Your task to perform on an android device: see tabs open on other devices in the chrome app Image 0: 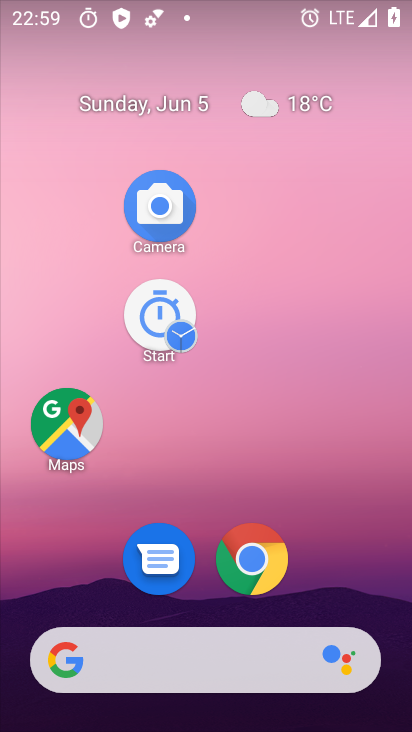
Step 0: drag from (275, 411) to (285, 112)
Your task to perform on an android device: see tabs open on other devices in the chrome app Image 1: 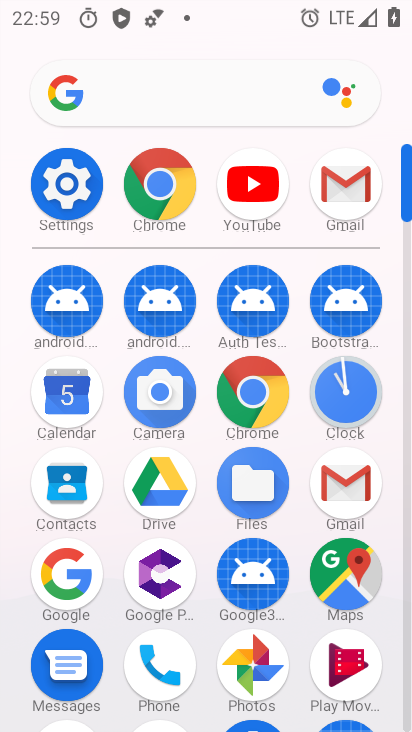
Step 1: press back button
Your task to perform on an android device: see tabs open on other devices in the chrome app Image 2: 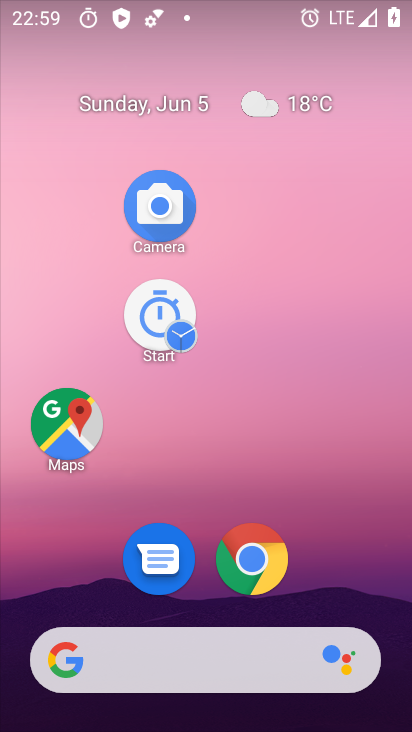
Step 2: drag from (240, 543) to (203, 233)
Your task to perform on an android device: see tabs open on other devices in the chrome app Image 3: 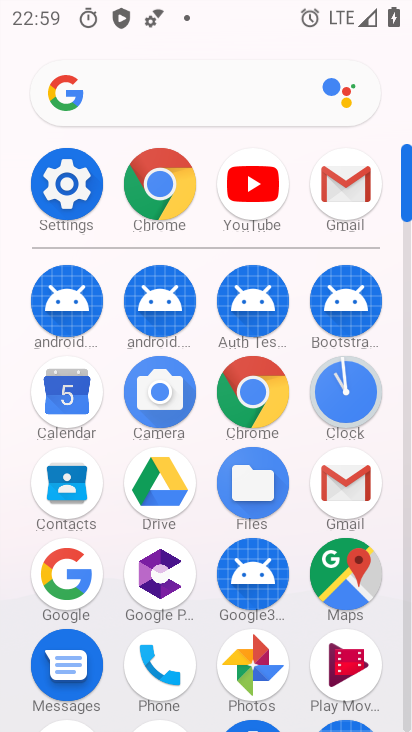
Step 3: click (154, 182)
Your task to perform on an android device: see tabs open on other devices in the chrome app Image 4: 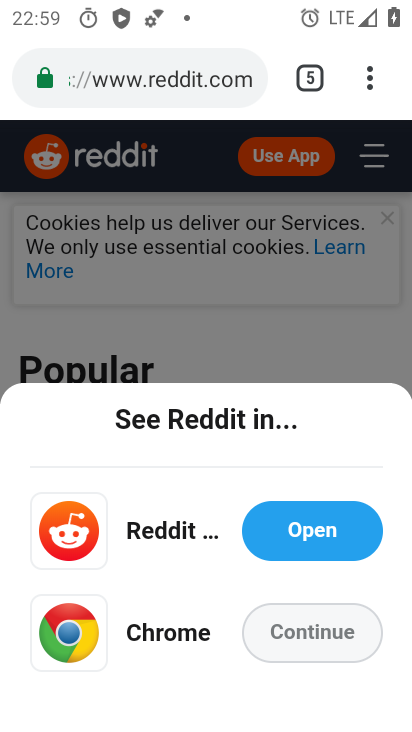
Step 4: press back button
Your task to perform on an android device: see tabs open on other devices in the chrome app Image 5: 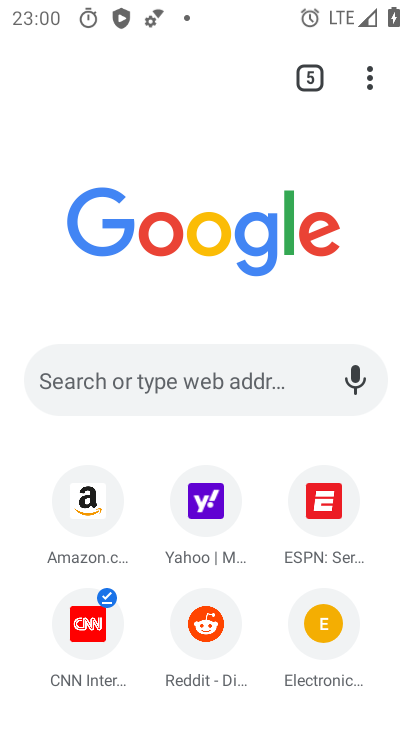
Step 5: click (369, 77)
Your task to perform on an android device: see tabs open on other devices in the chrome app Image 6: 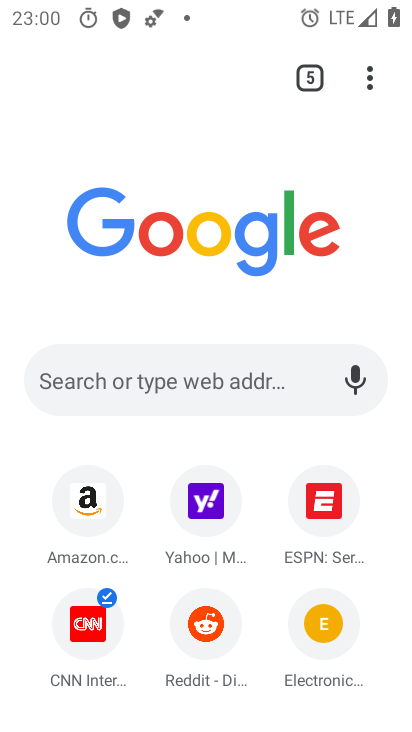
Step 6: drag from (370, 83) to (90, 368)
Your task to perform on an android device: see tabs open on other devices in the chrome app Image 7: 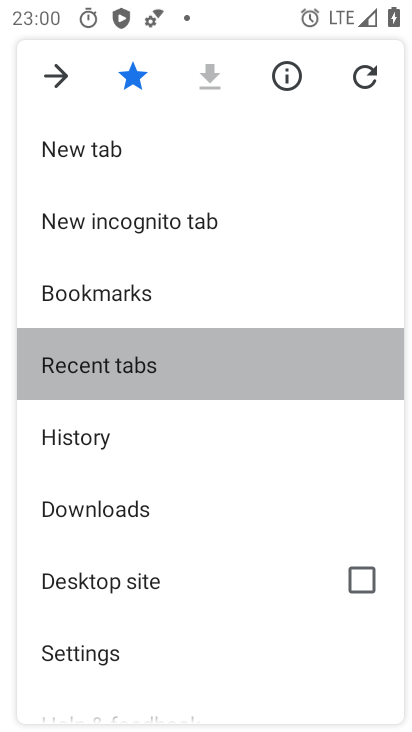
Step 7: click (90, 368)
Your task to perform on an android device: see tabs open on other devices in the chrome app Image 8: 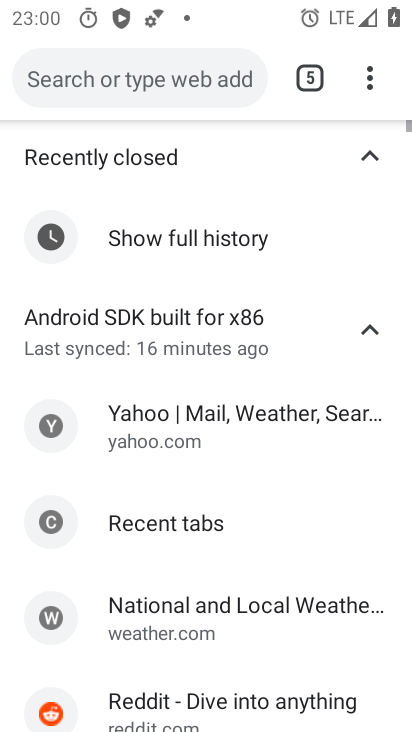
Step 8: click (90, 358)
Your task to perform on an android device: see tabs open on other devices in the chrome app Image 9: 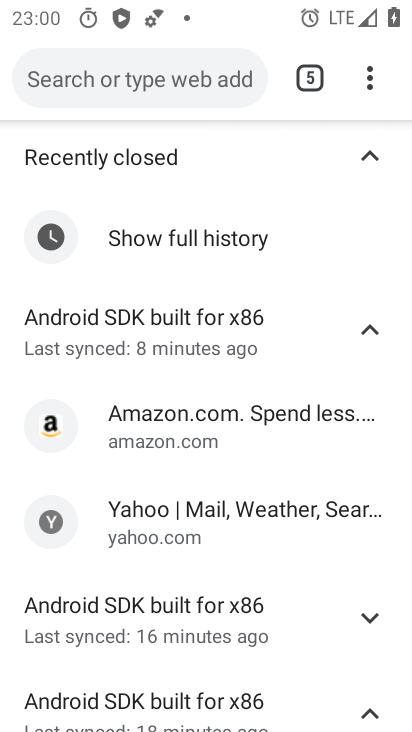
Step 9: task complete